Your task to perform on an android device: Open location settings Image 0: 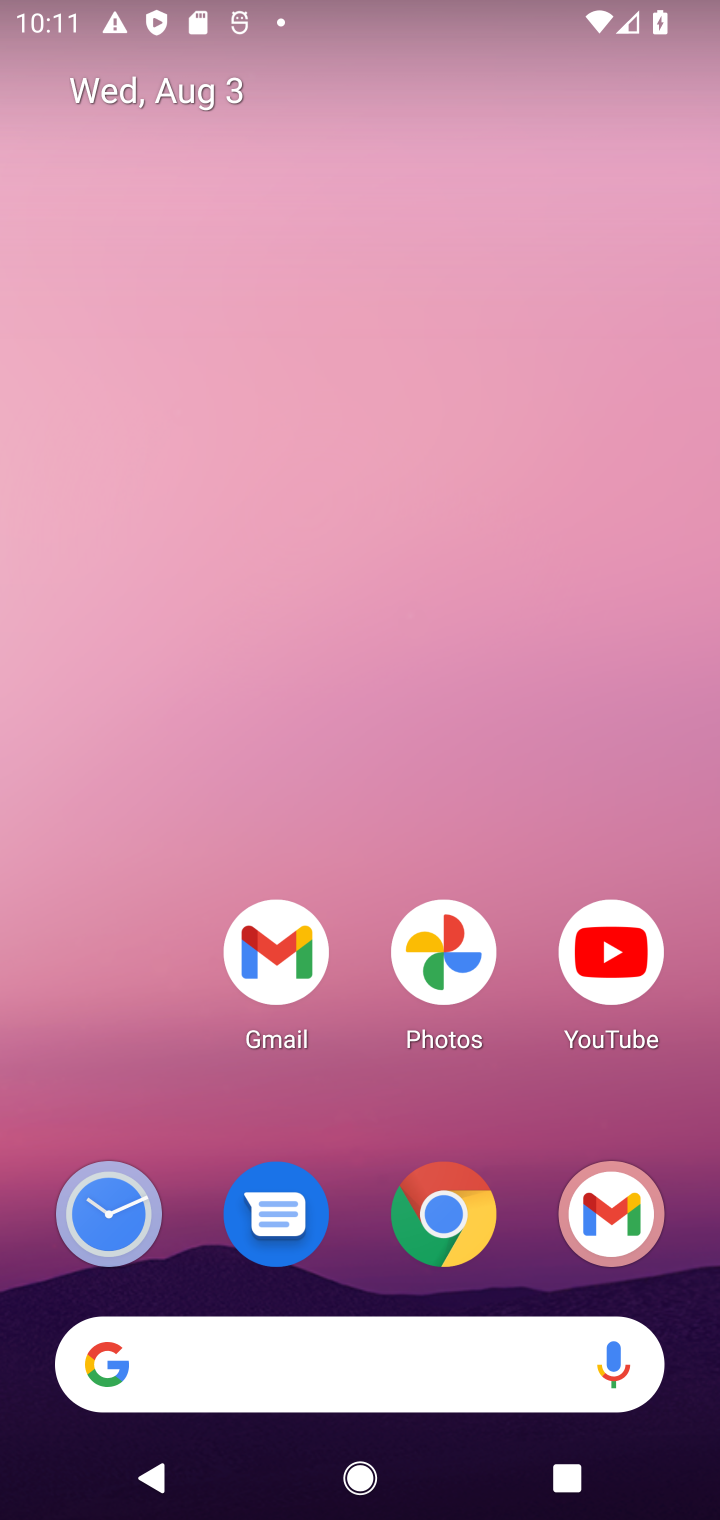
Step 0: press home button
Your task to perform on an android device: Open location settings Image 1: 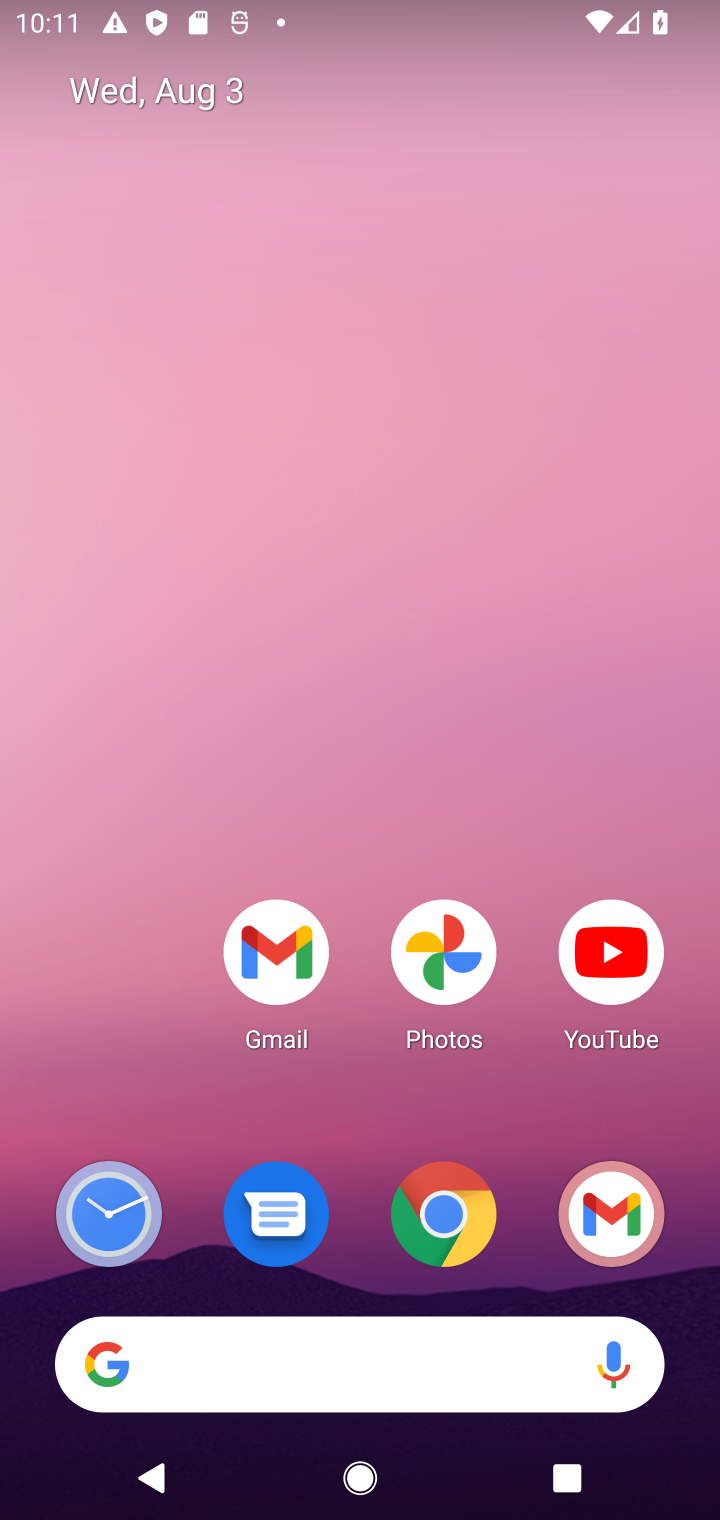
Step 1: press home button
Your task to perform on an android device: Open location settings Image 2: 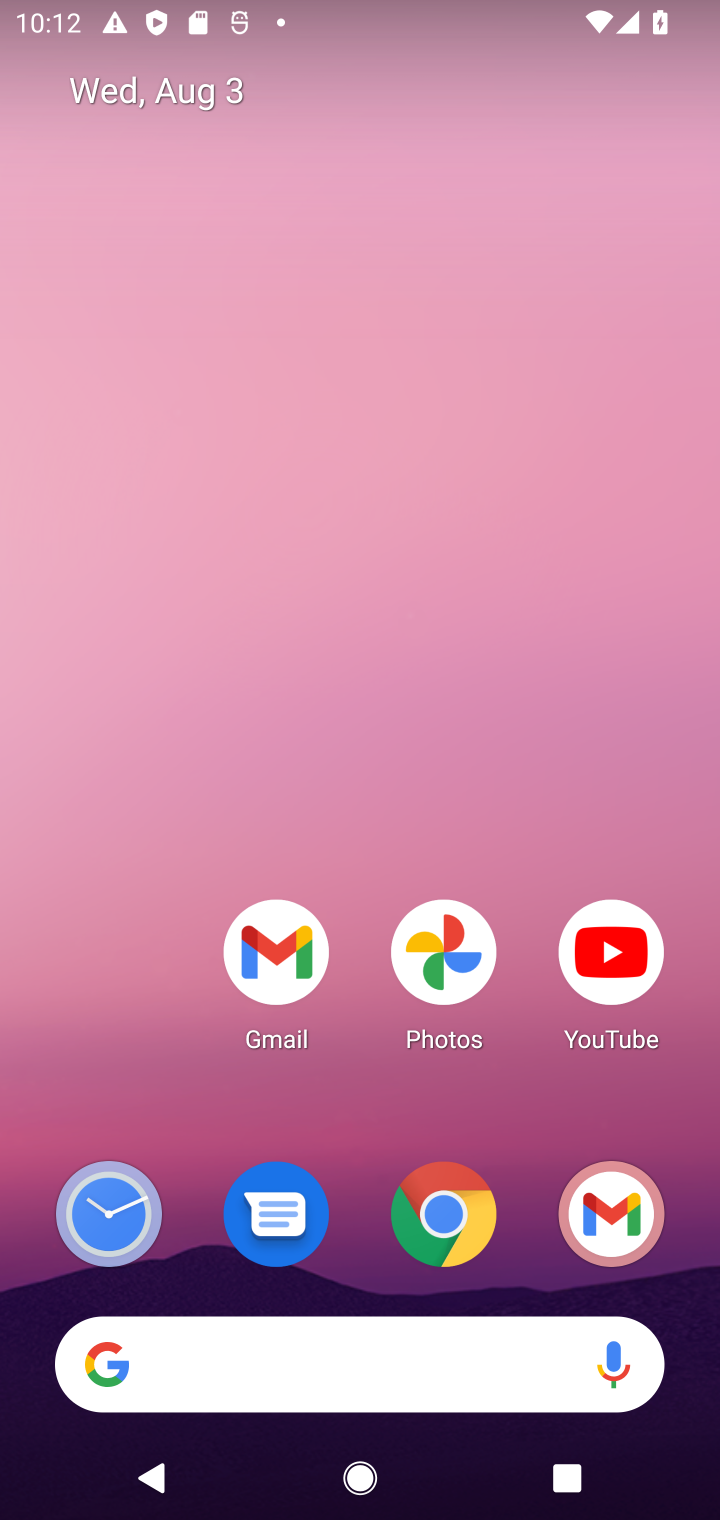
Step 2: drag from (632, 1119) to (461, 221)
Your task to perform on an android device: Open location settings Image 3: 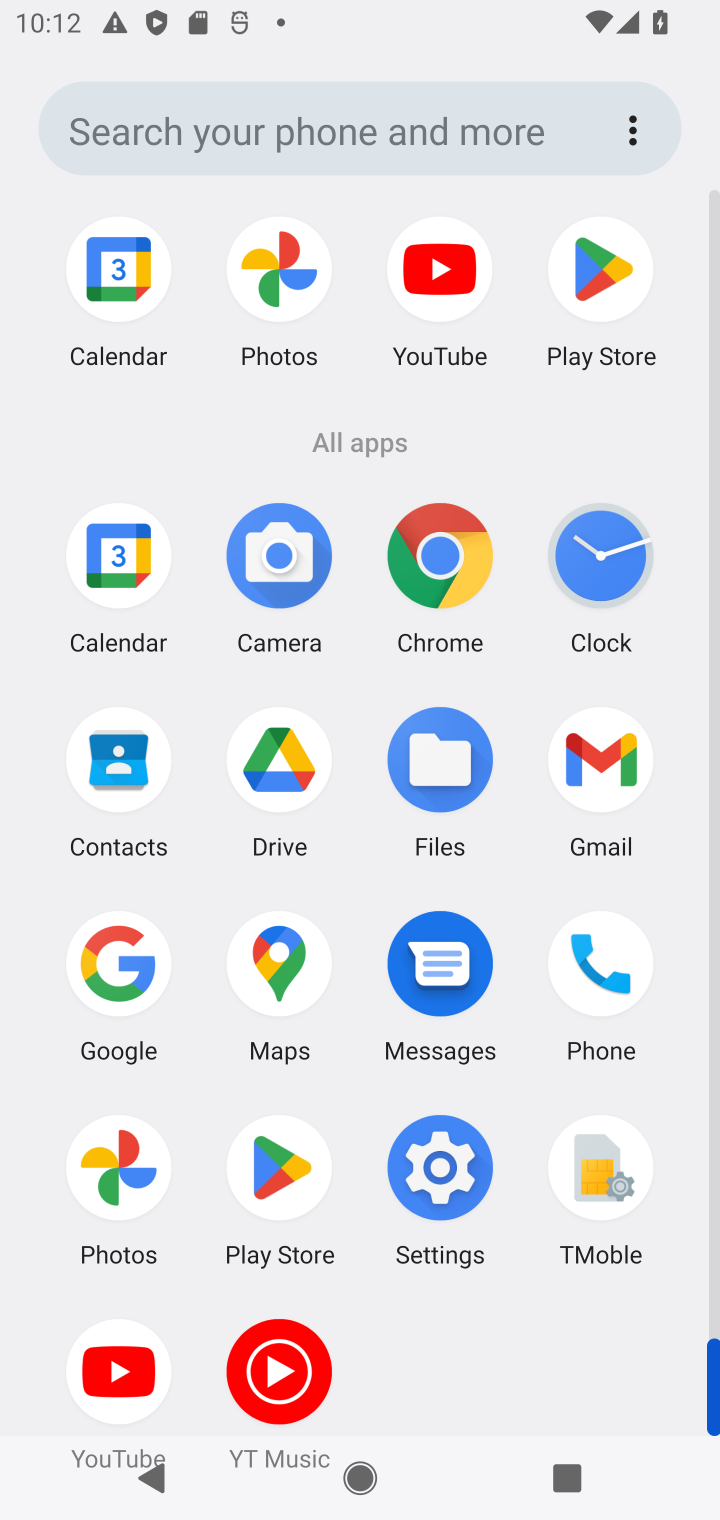
Step 3: click (407, 1155)
Your task to perform on an android device: Open location settings Image 4: 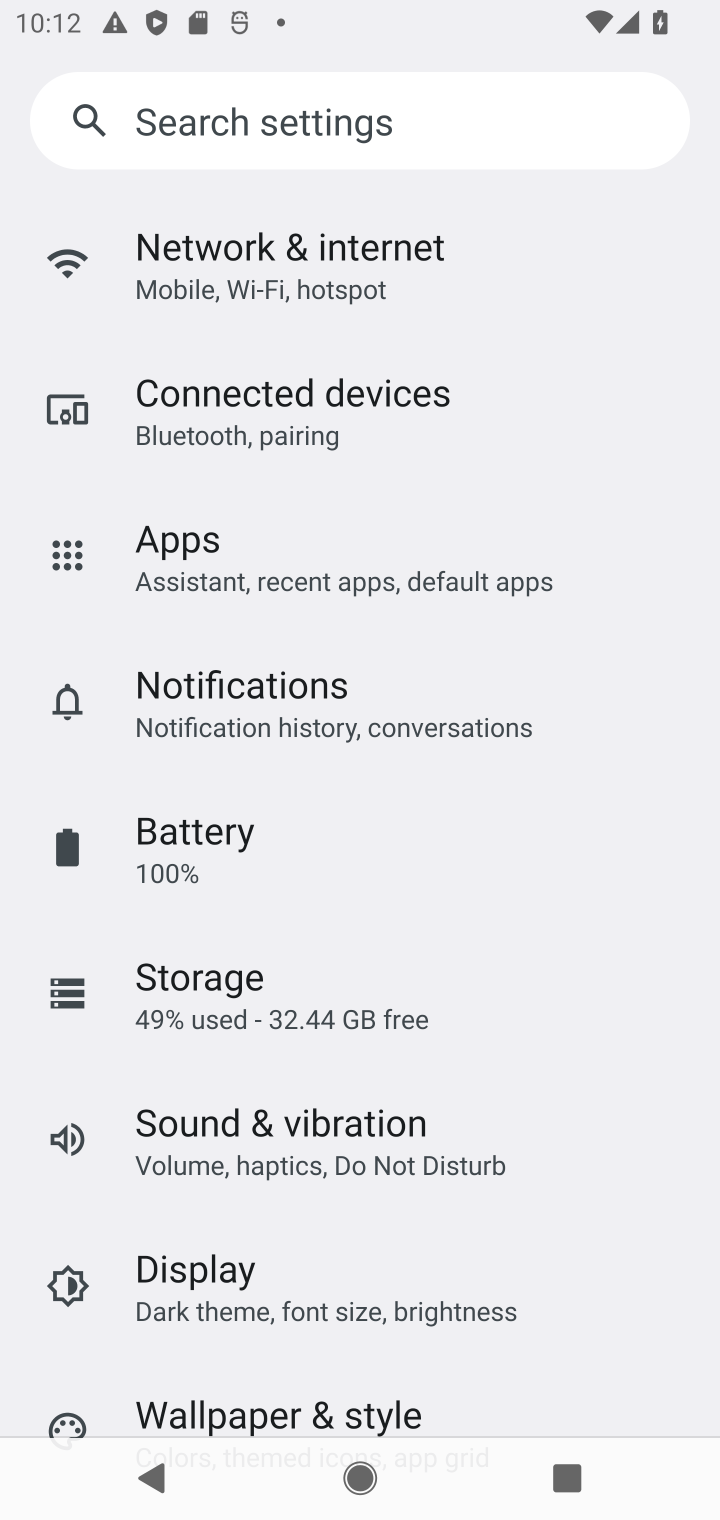
Step 4: drag from (350, 1050) to (468, 268)
Your task to perform on an android device: Open location settings Image 5: 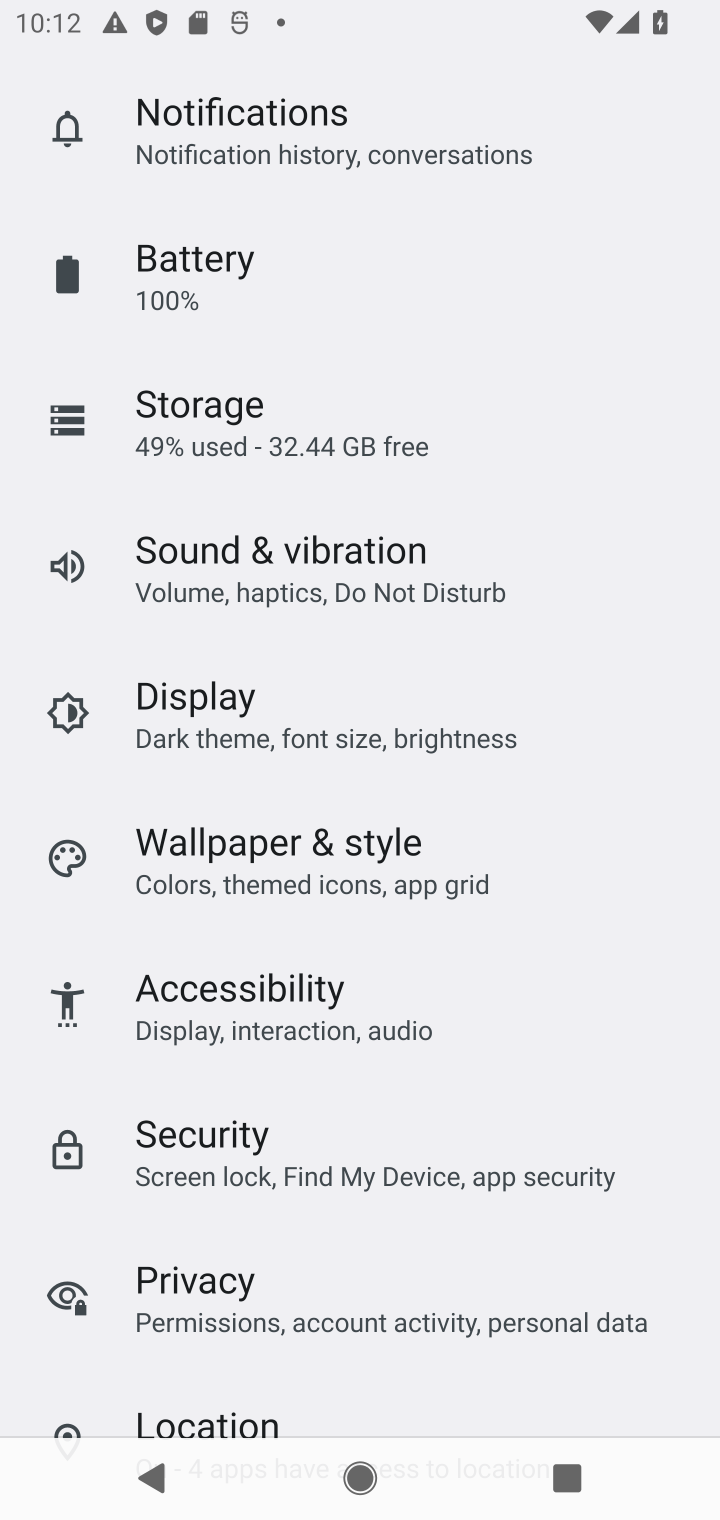
Step 5: click (264, 1403)
Your task to perform on an android device: Open location settings Image 6: 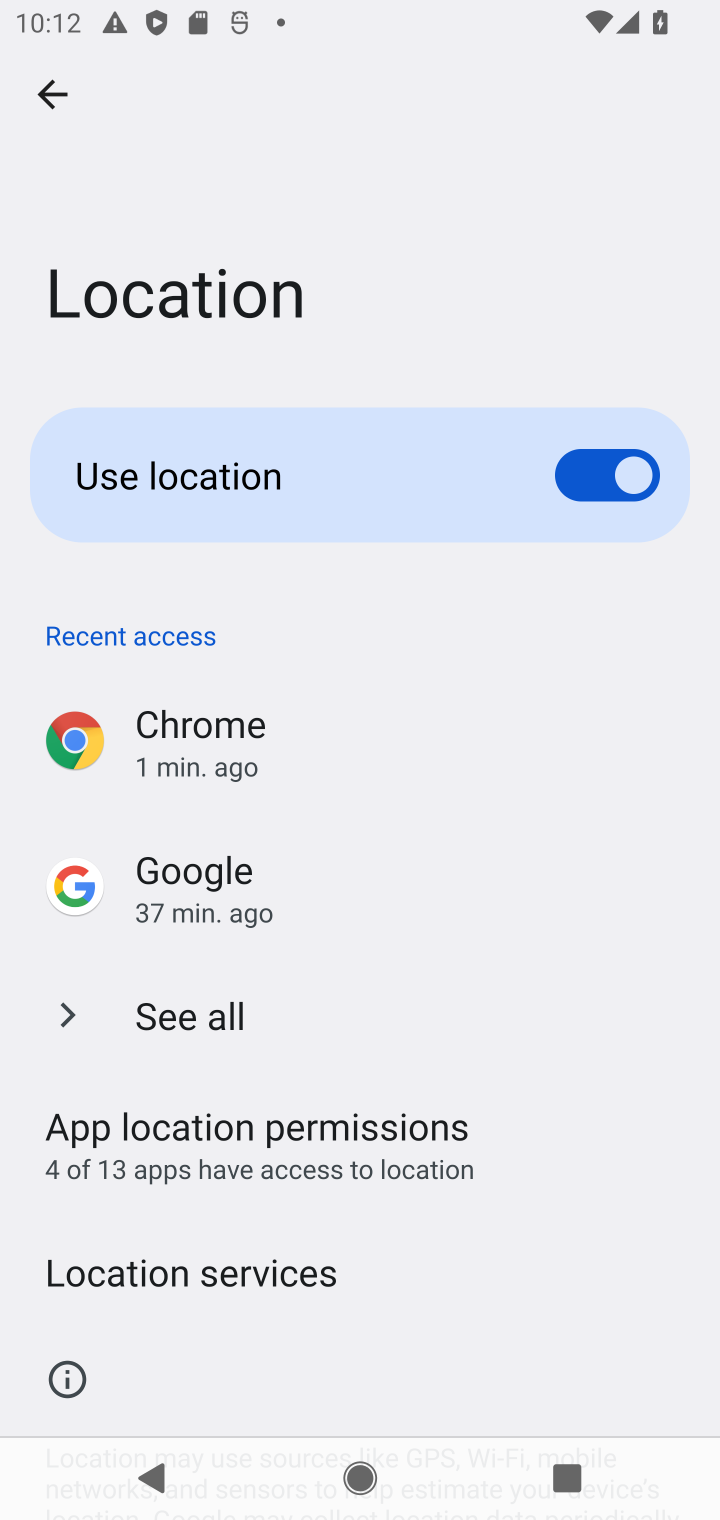
Step 6: task complete